Your task to perform on an android device: set default search engine in the chrome app Image 0: 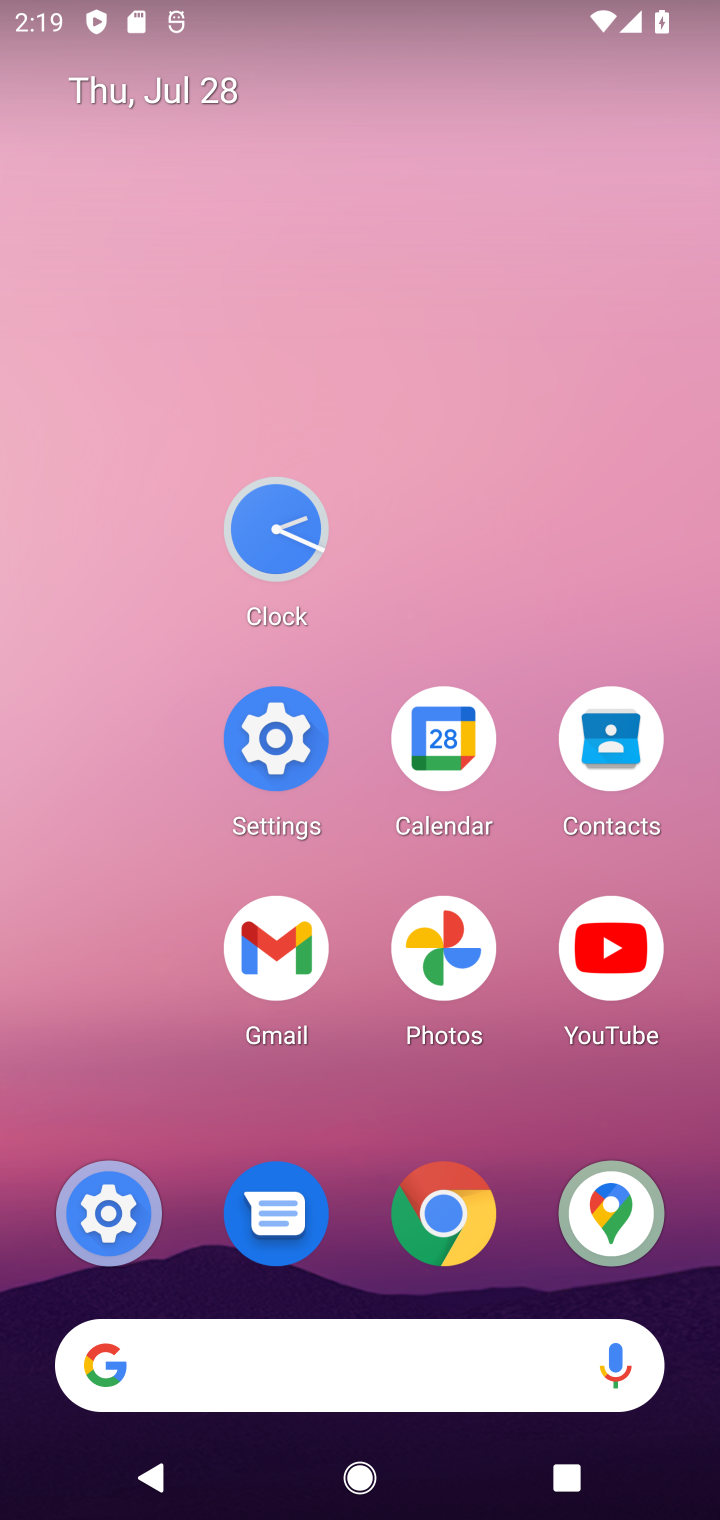
Step 0: click (444, 1220)
Your task to perform on an android device: set default search engine in the chrome app Image 1: 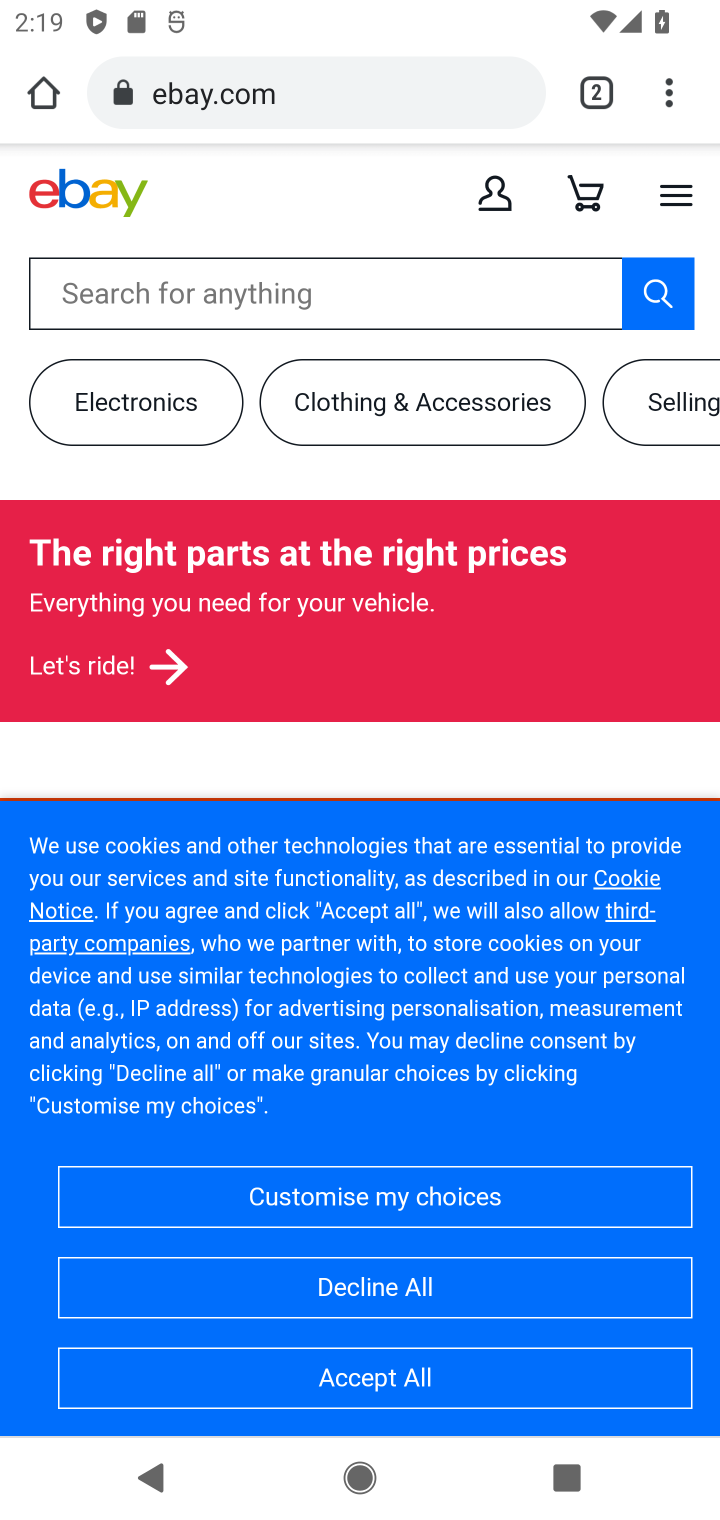
Step 1: click (674, 97)
Your task to perform on an android device: set default search engine in the chrome app Image 2: 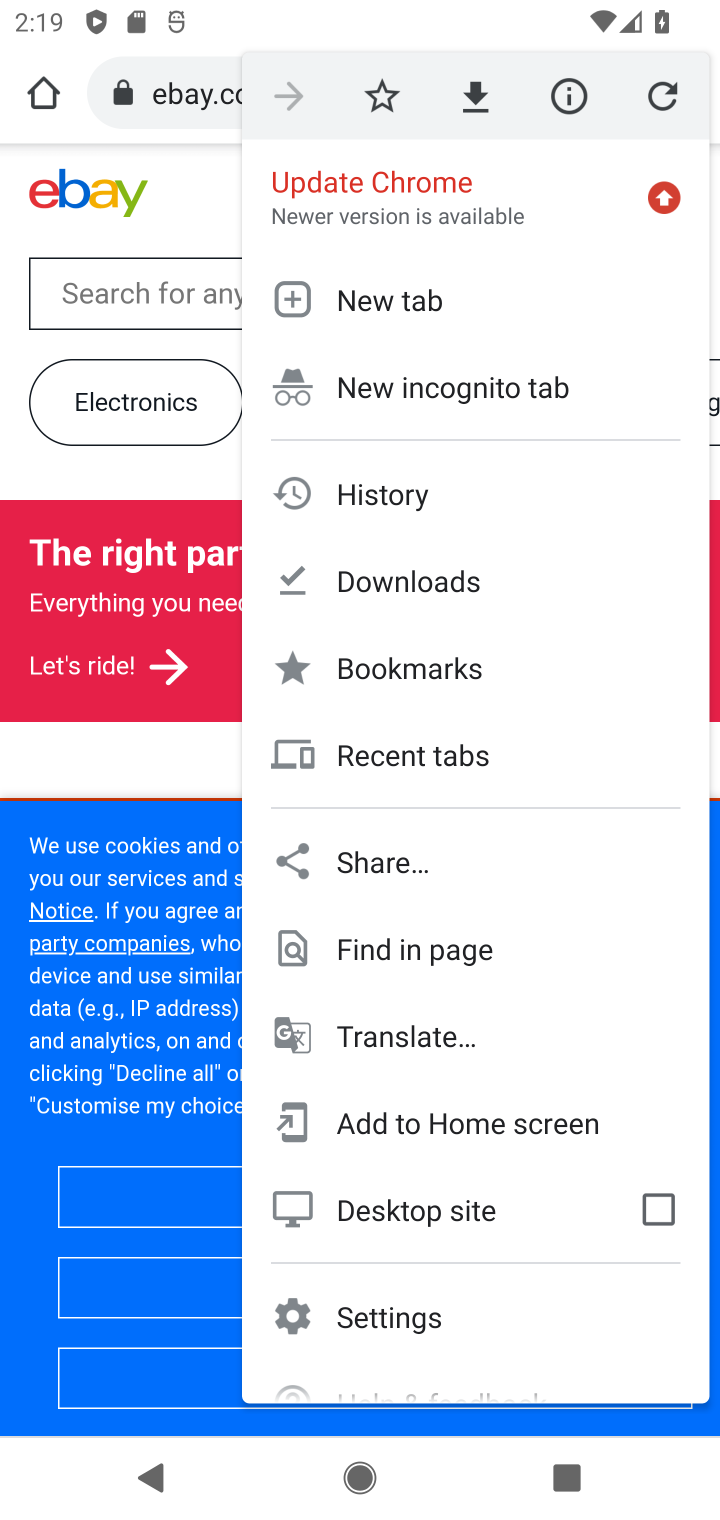
Step 2: click (388, 1314)
Your task to perform on an android device: set default search engine in the chrome app Image 3: 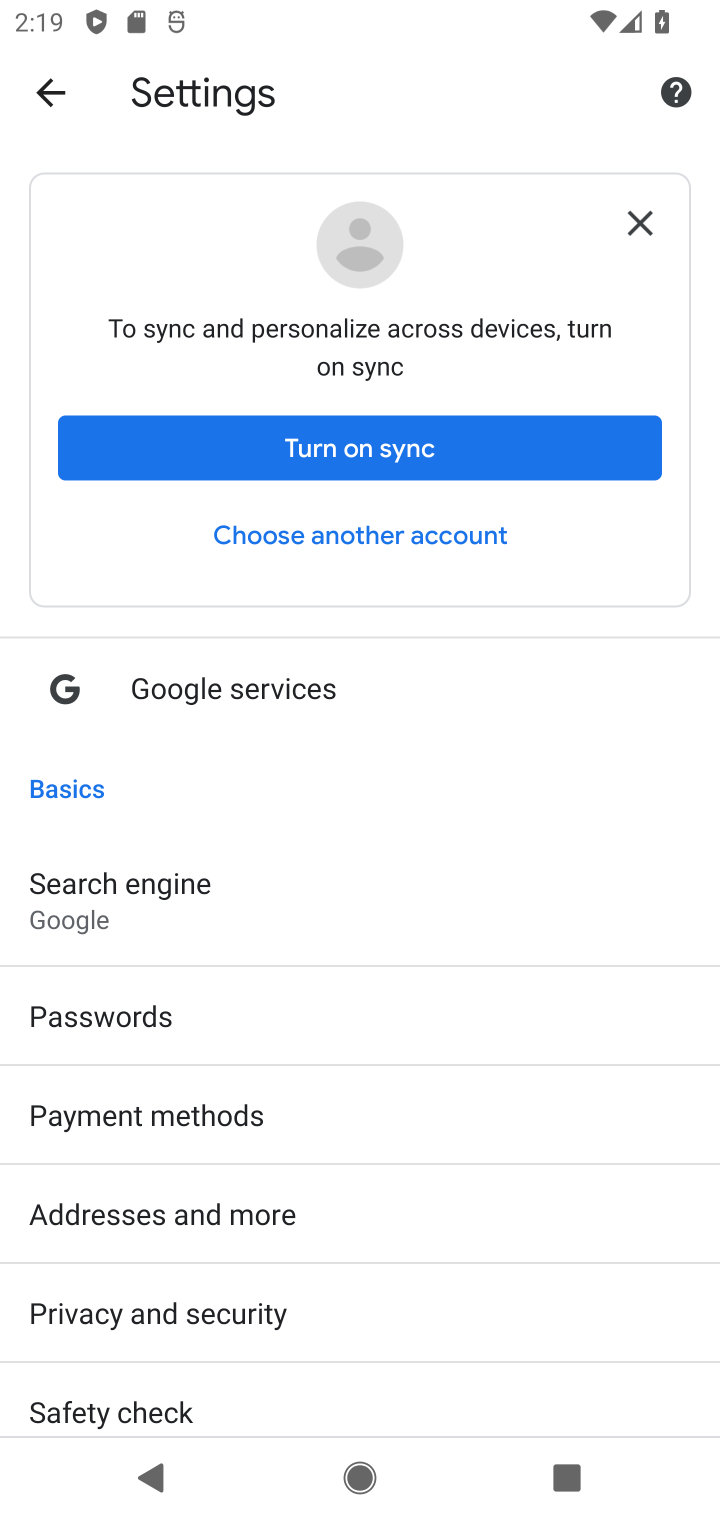
Step 3: click (95, 885)
Your task to perform on an android device: set default search engine in the chrome app Image 4: 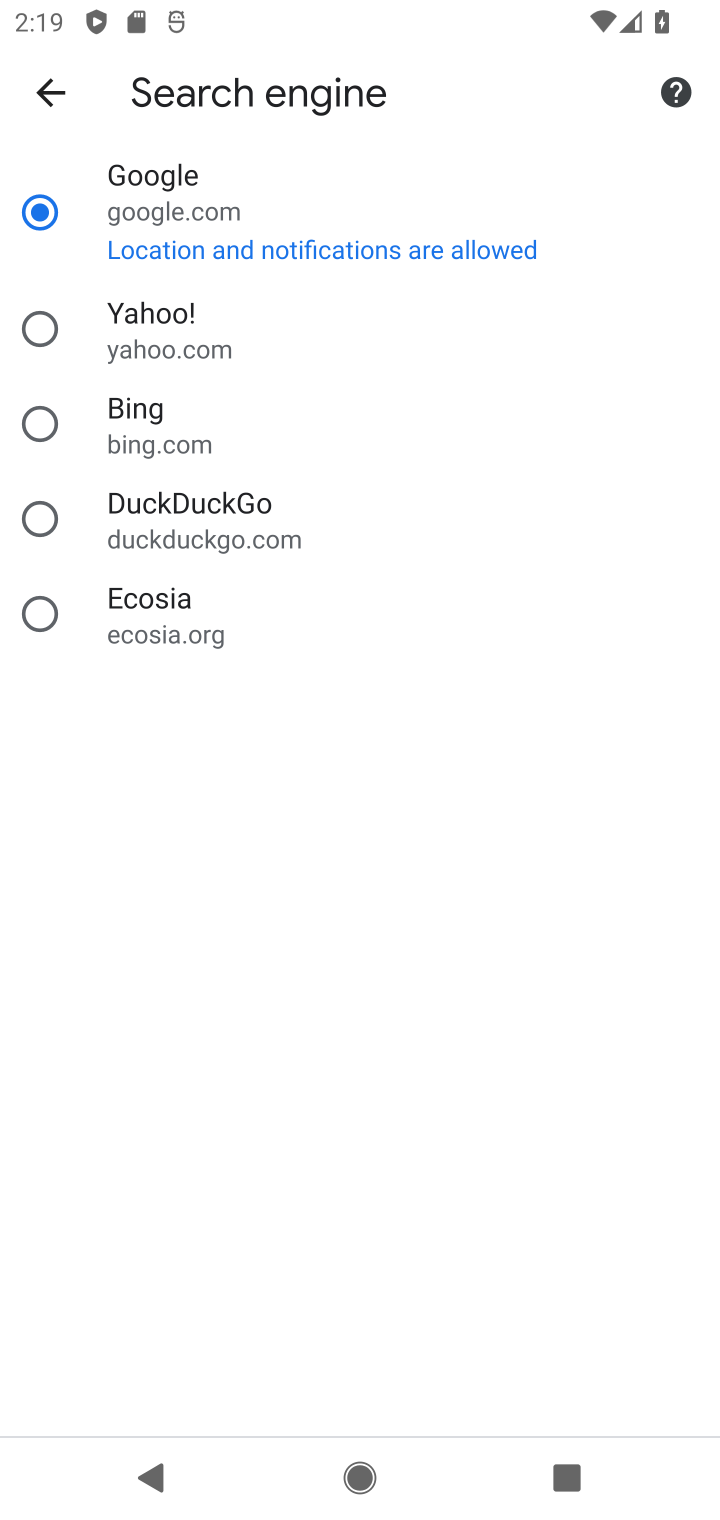
Step 4: task complete